Your task to perform on an android device: open app "Instagram" (install if not already installed) and go to login screen Image 0: 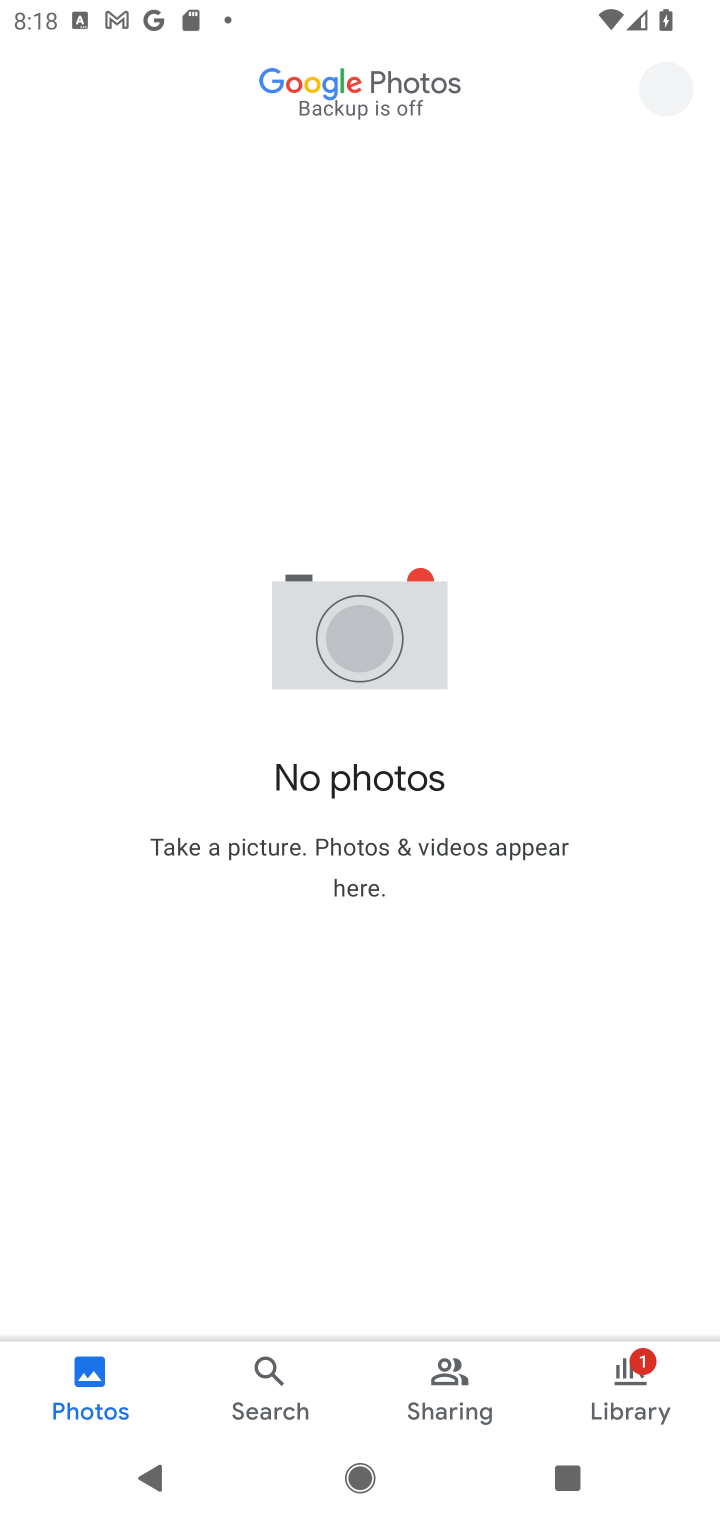
Step 0: press home button
Your task to perform on an android device: open app "Instagram" (install if not already installed) and go to login screen Image 1: 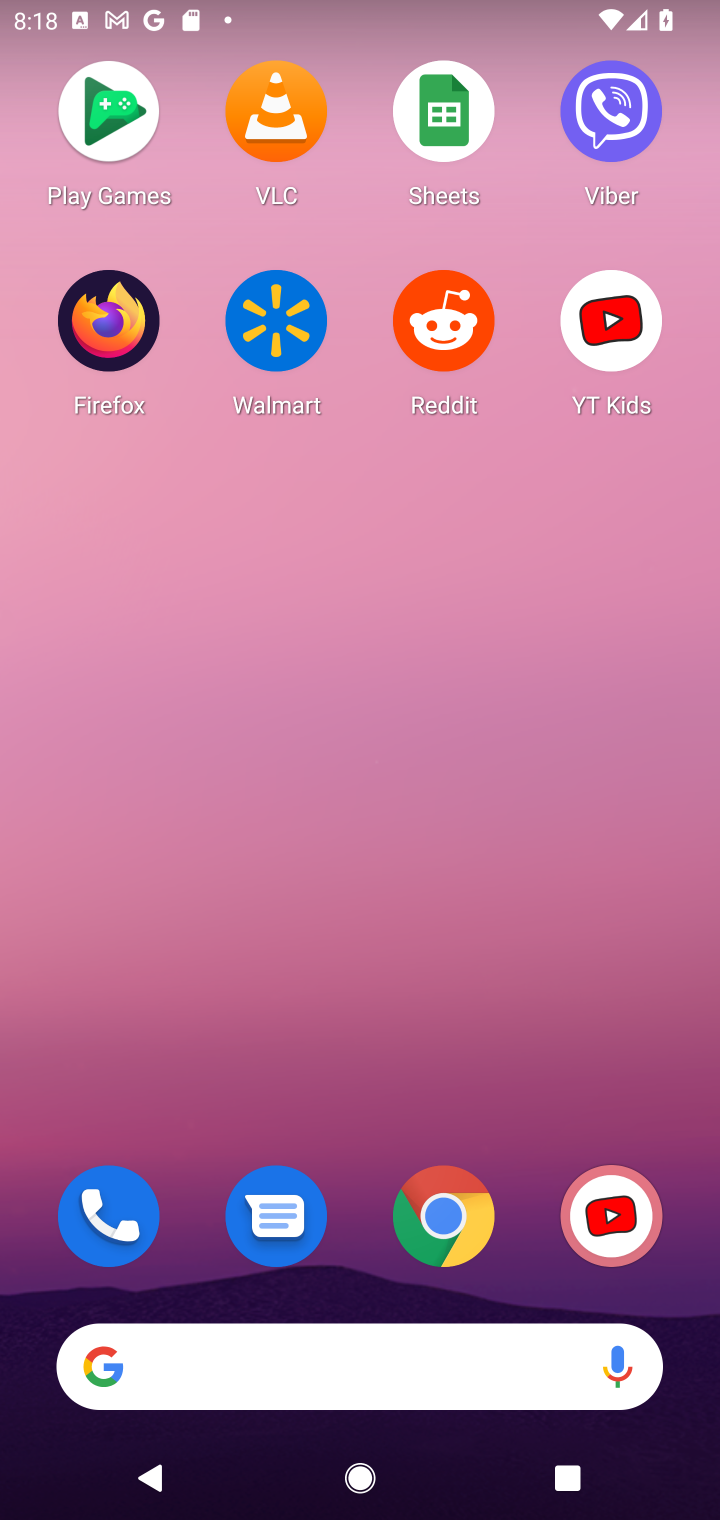
Step 1: drag from (356, 1064) to (499, 139)
Your task to perform on an android device: open app "Instagram" (install if not already installed) and go to login screen Image 2: 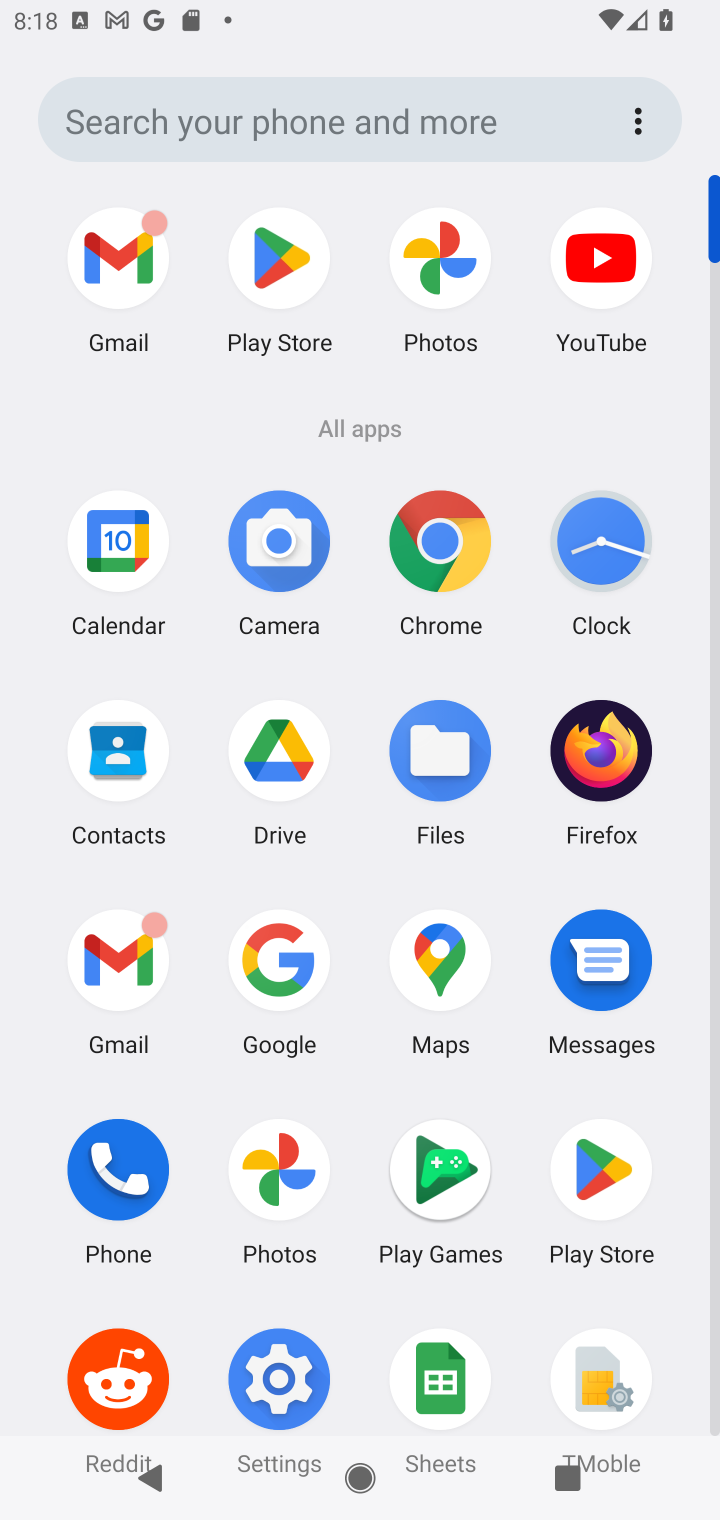
Step 2: click (263, 282)
Your task to perform on an android device: open app "Instagram" (install if not already installed) and go to login screen Image 3: 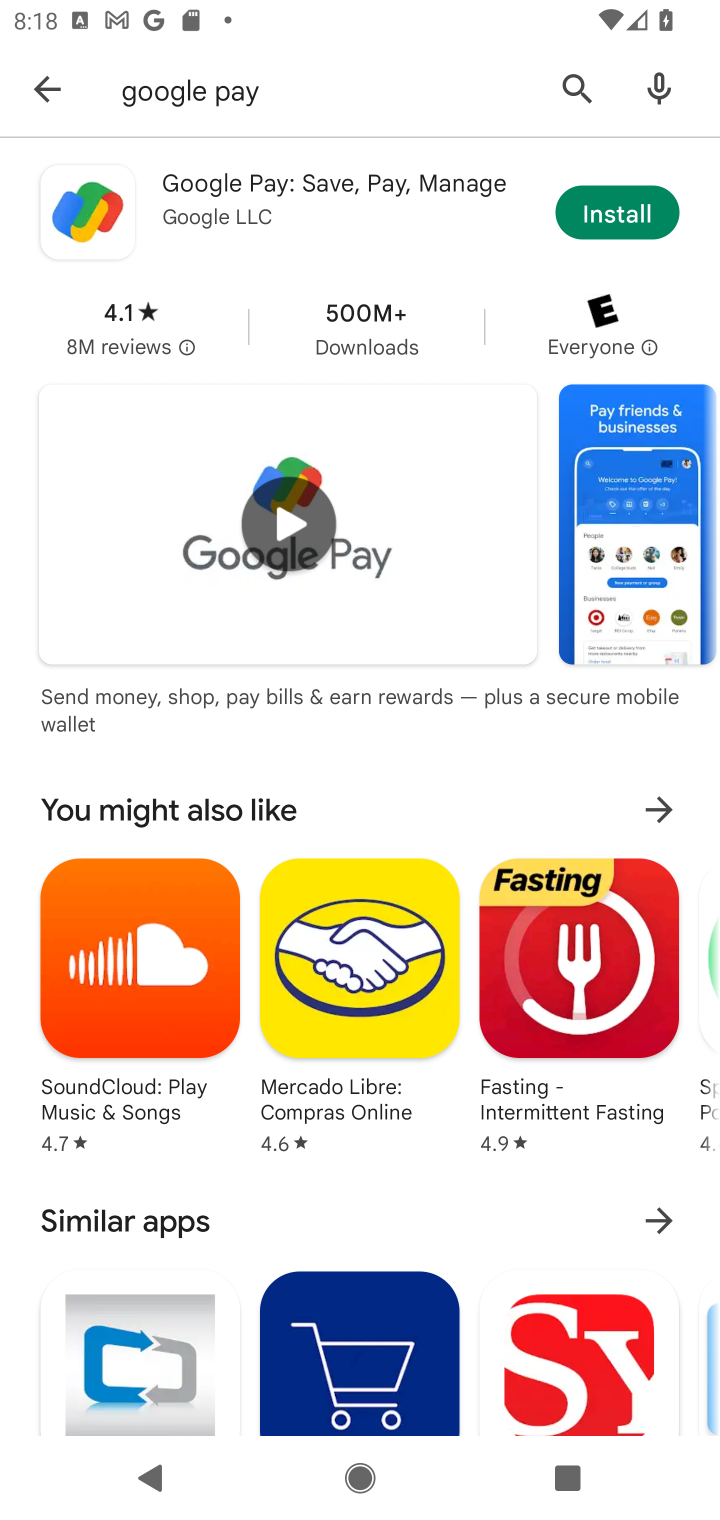
Step 3: click (581, 81)
Your task to perform on an android device: open app "Instagram" (install if not already installed) and go to login screen Image 4: 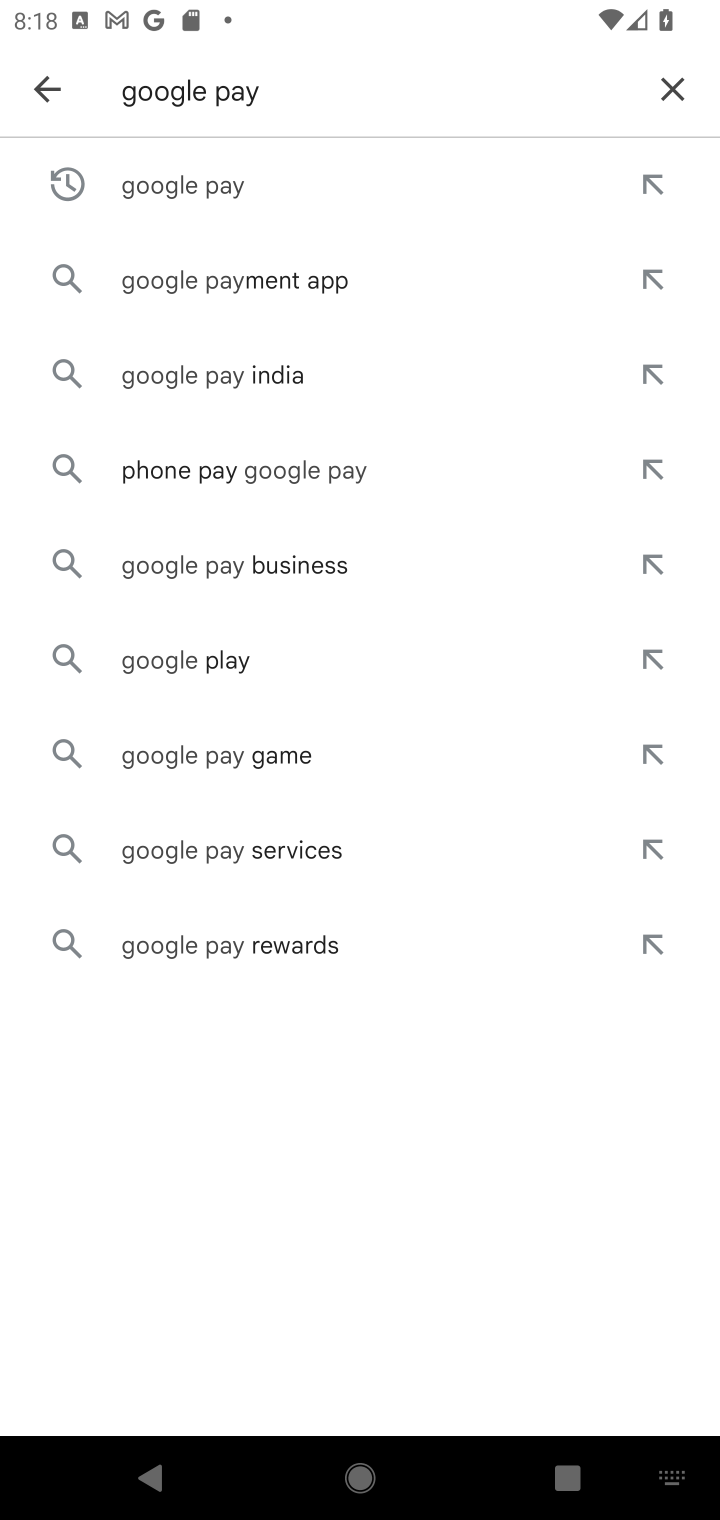
Step 4: click (666, 90)
Your task to perform on an android device: open app "Instagram" (install if not already installed) and go to login screen Image 5: 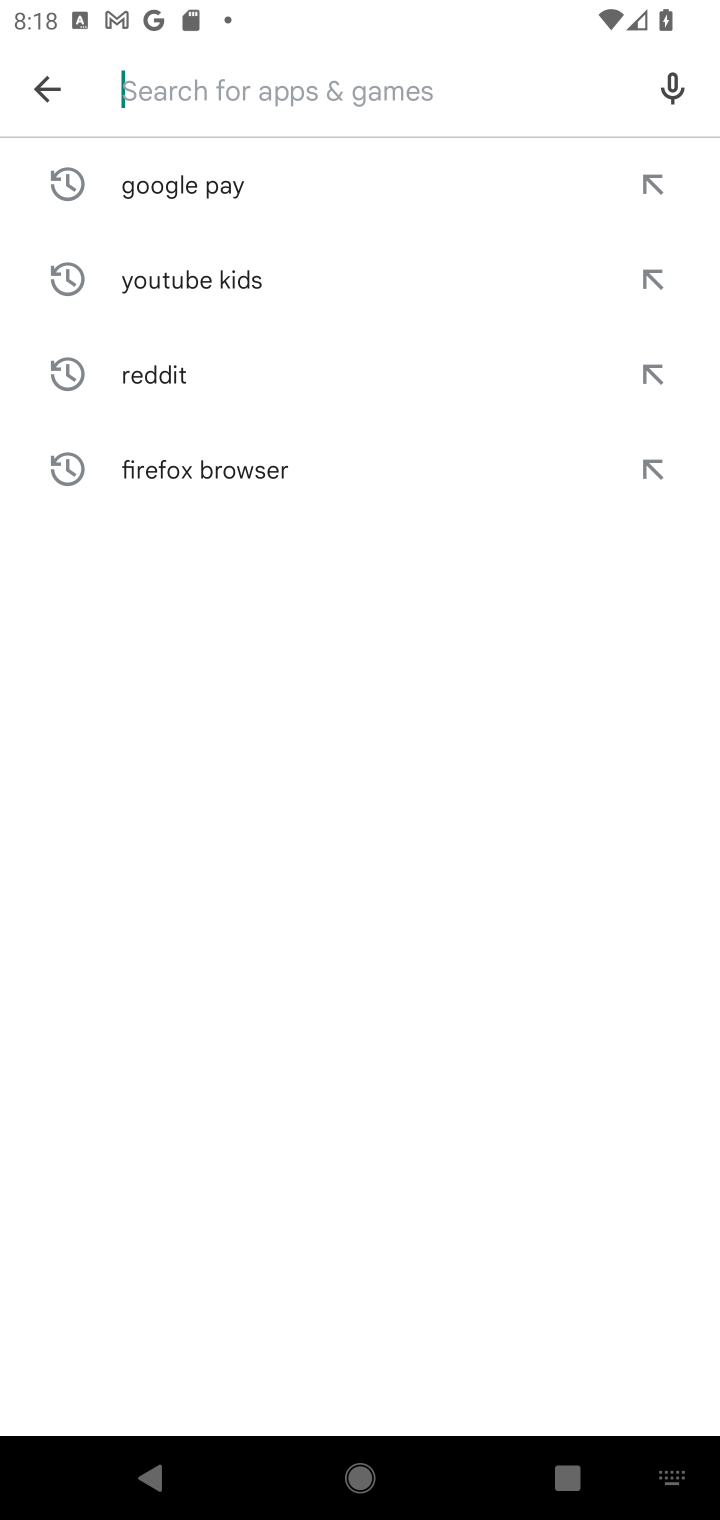
Step 5: click (235, 92)
Your task to perform on an android device: open app "Instagram" (install if not already installed) and go to login screen Image 6: 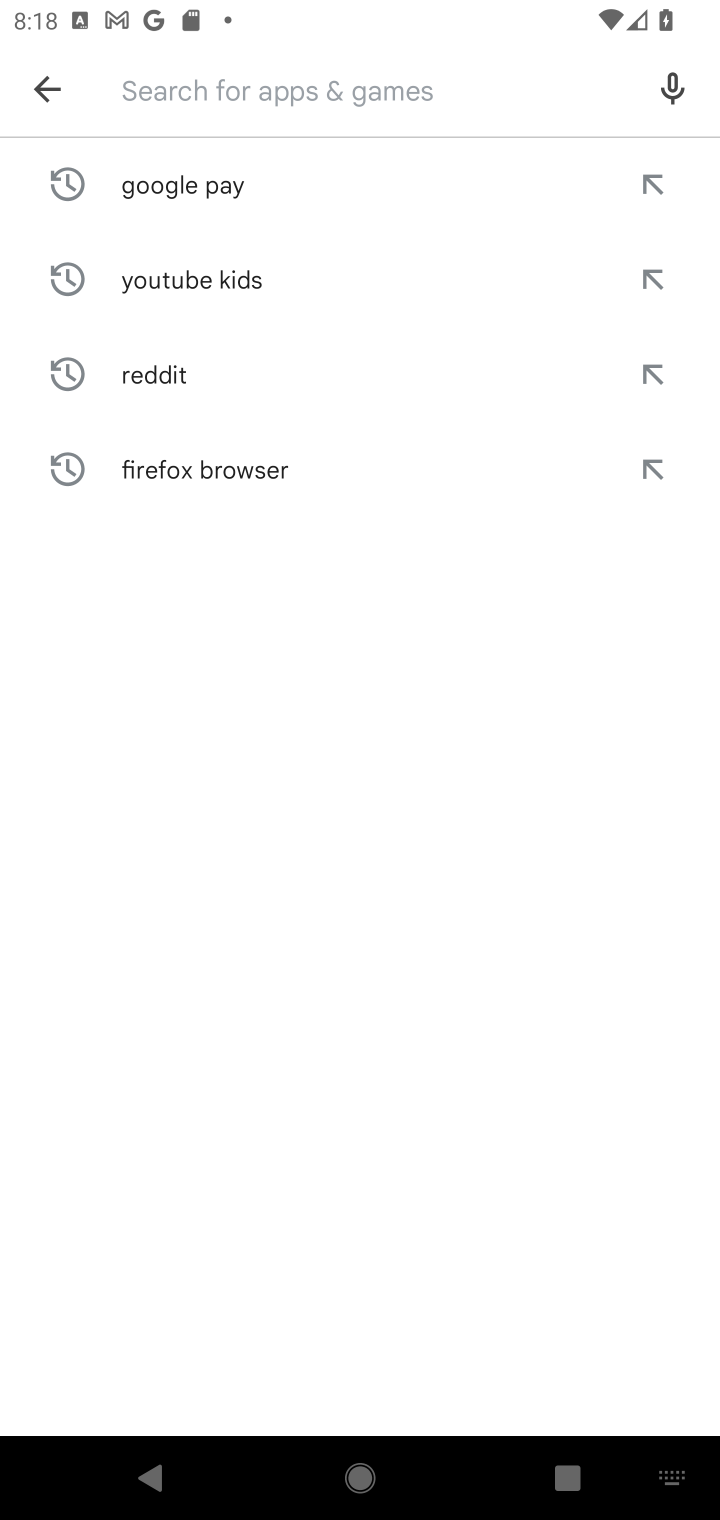
Step 6: type "intagram"
Your task to perform on an android device: open app "Instagram" (install if not already installed) and go to login screen Image 7: 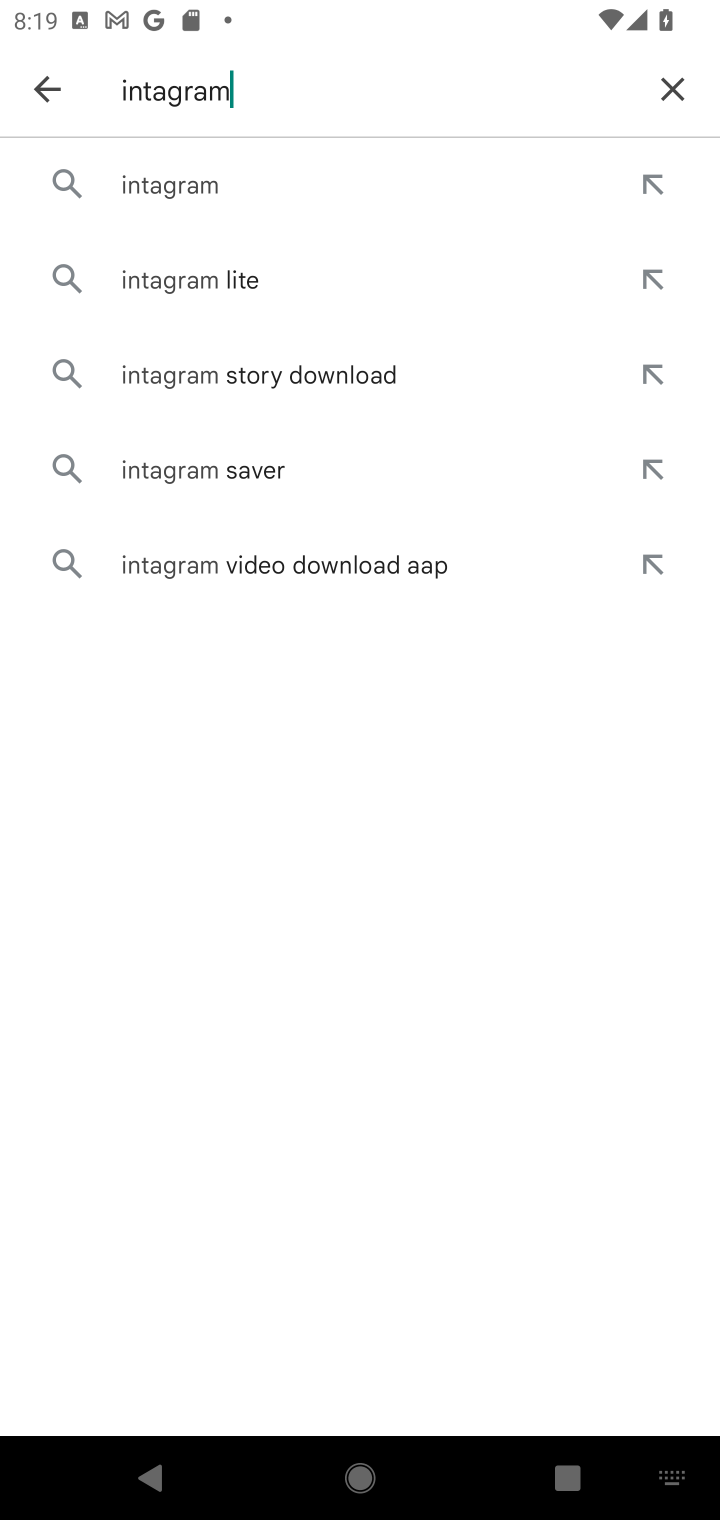
Step 7: click (253, 179)
Your task to perform on an android device: open app "Instagram" (install if not already installed) and go to login screen Image 8: 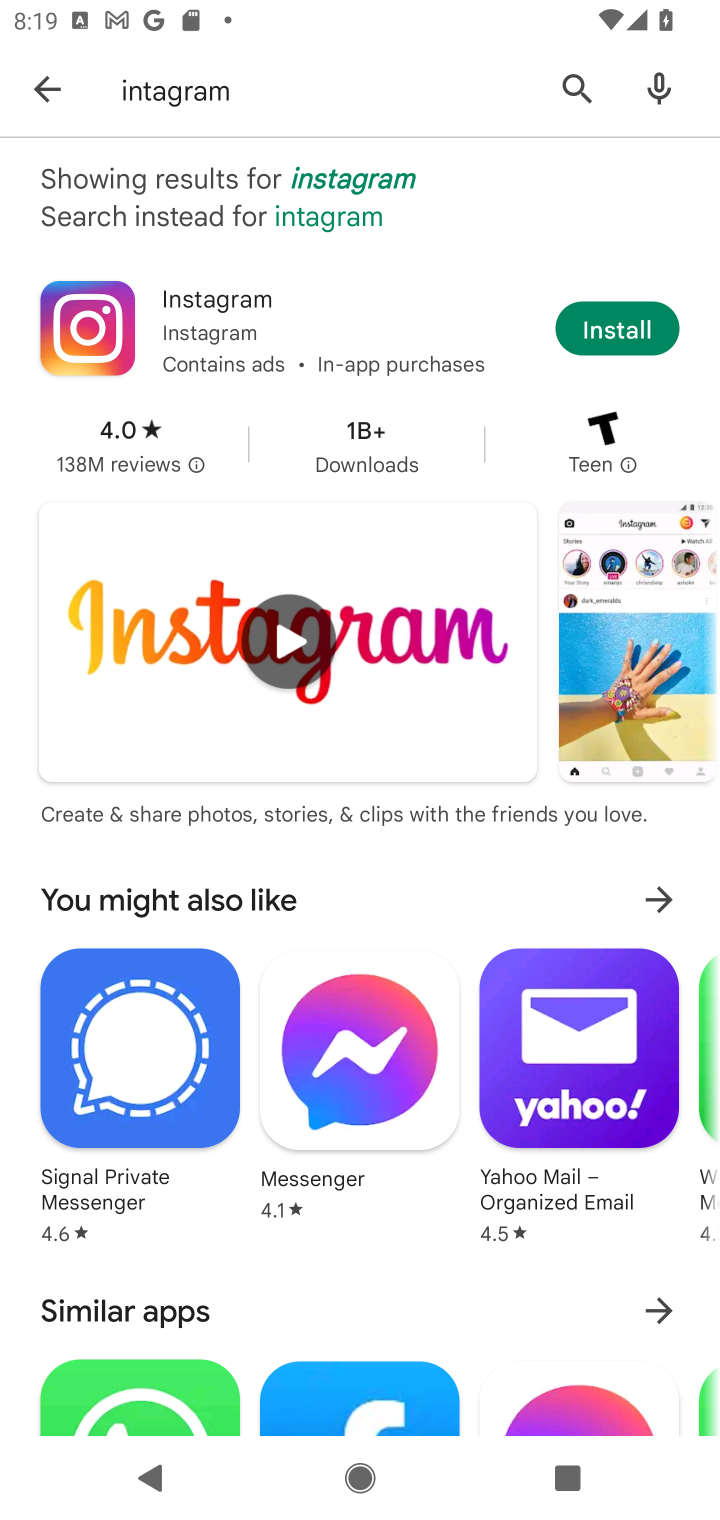
Step 8: click (631, 324)
Your task to perform on an android device: open app "Instagram" (install if not already installed) and go to login screen Image 9: 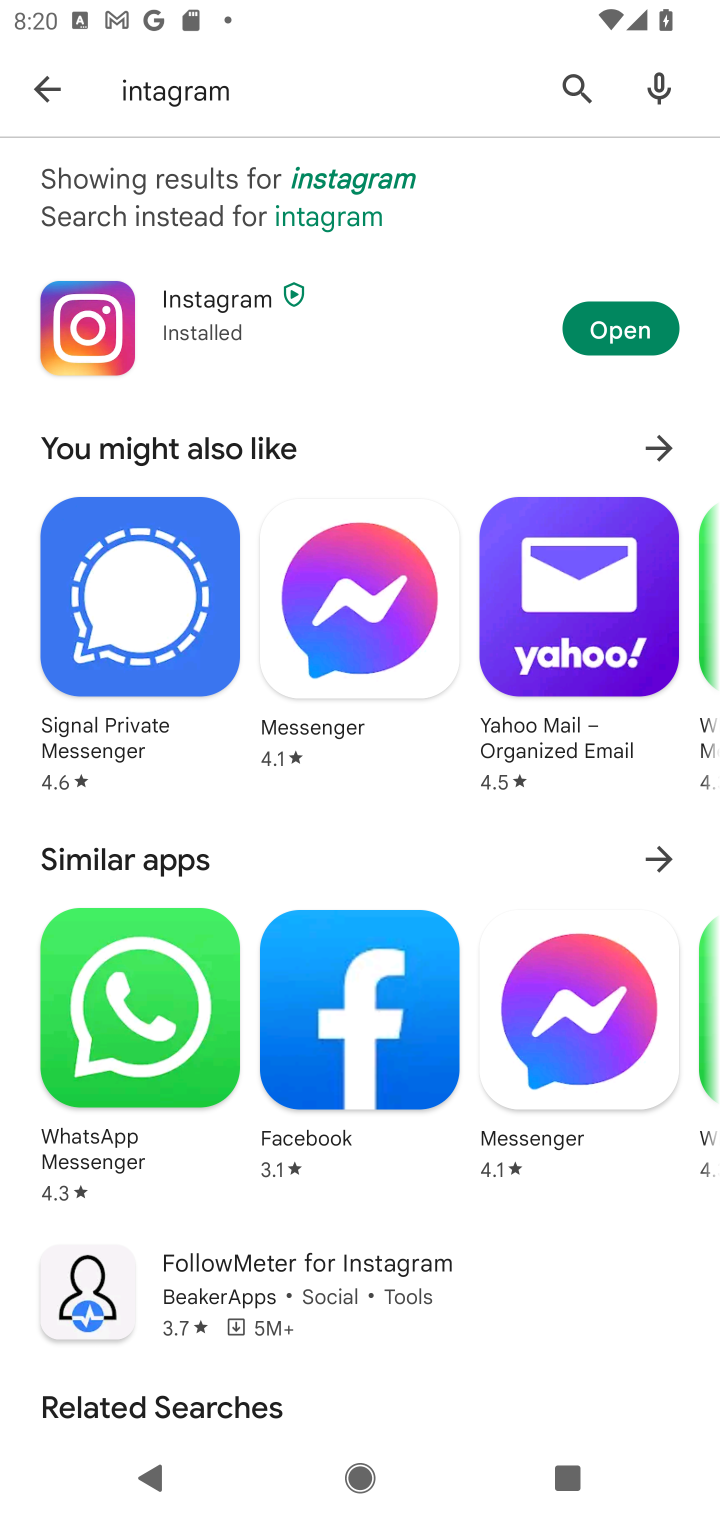
Step 9: click (629, 324)
Your task to perform on an android device: open app "Instagram" (install if not already installed) and go to login screen Image 10: 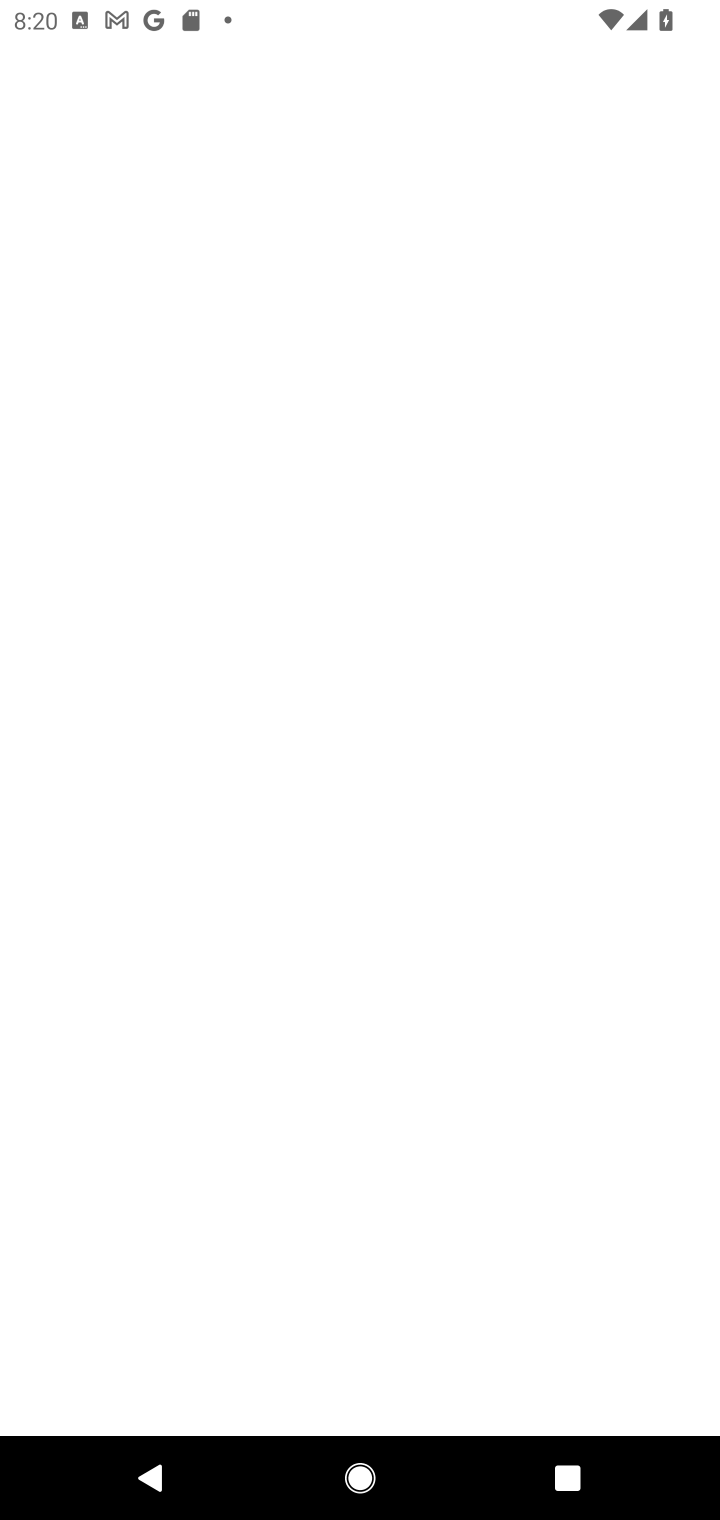
Step 10: click (269, 319)
Your task to perform on an android device: open app "Instagram" (install if not already installed) and go to login screen Image 11: 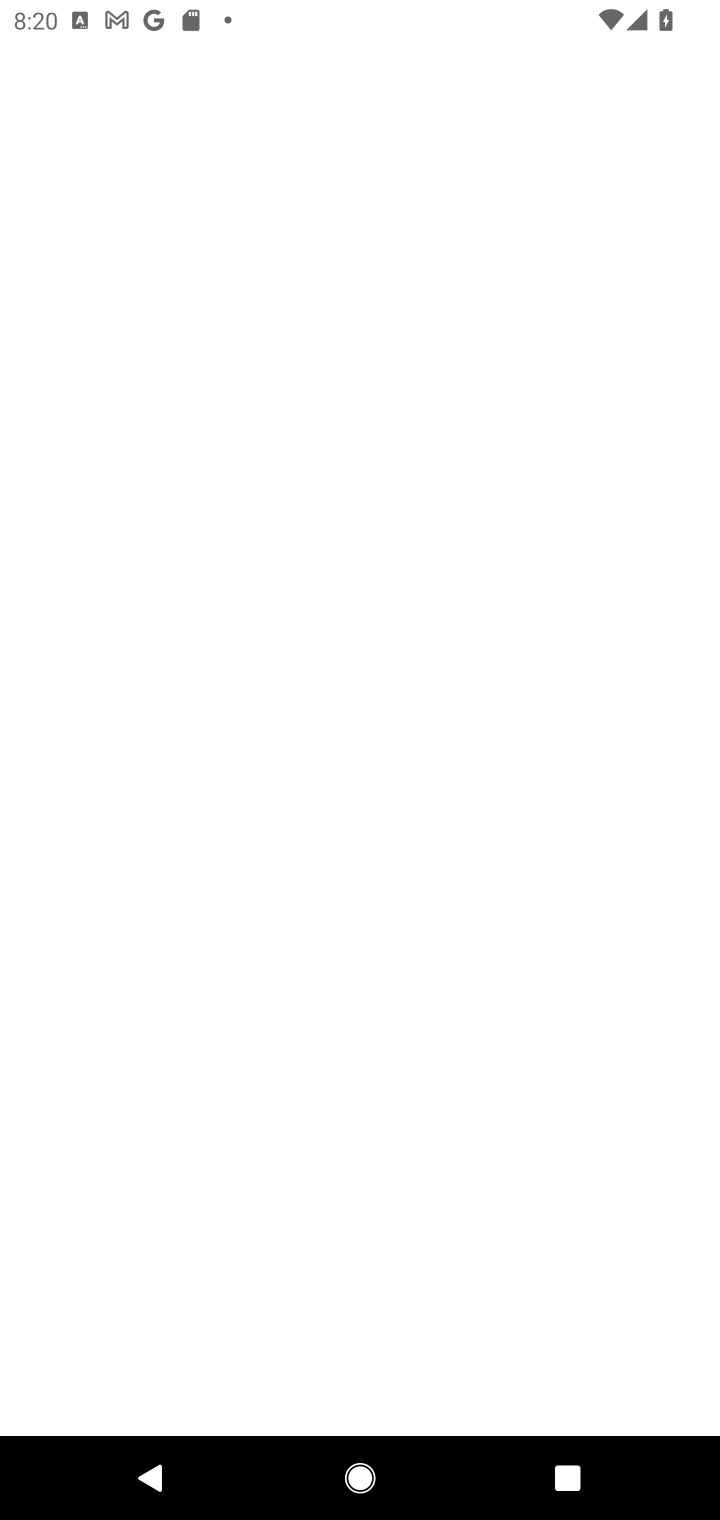
Step 11: click (251, 1008)
Your task to perform on an android device: open app "Instagram" (install if not already installed) and go to login screen Image 12: 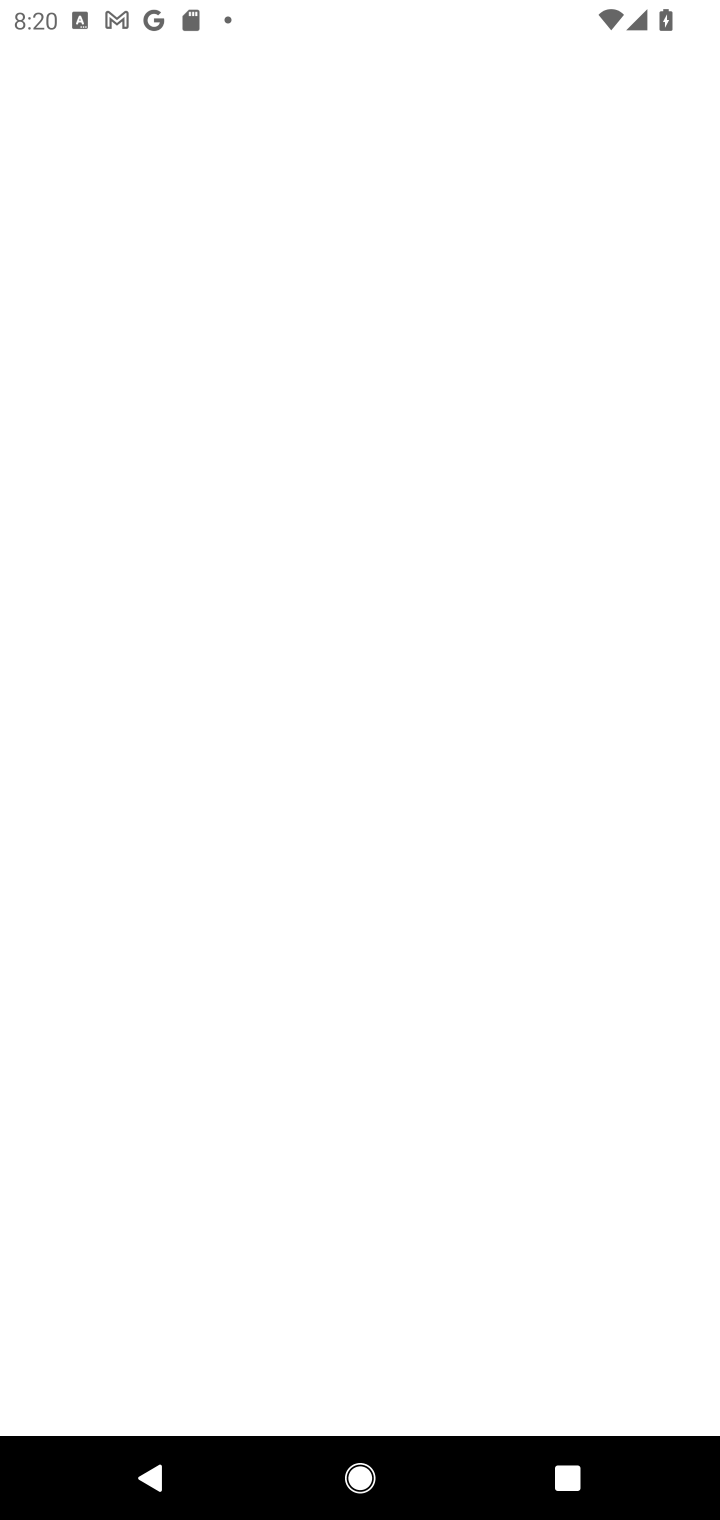
Step 12: task complete